Your task to perform on an android device: Open my contact list Image 0: 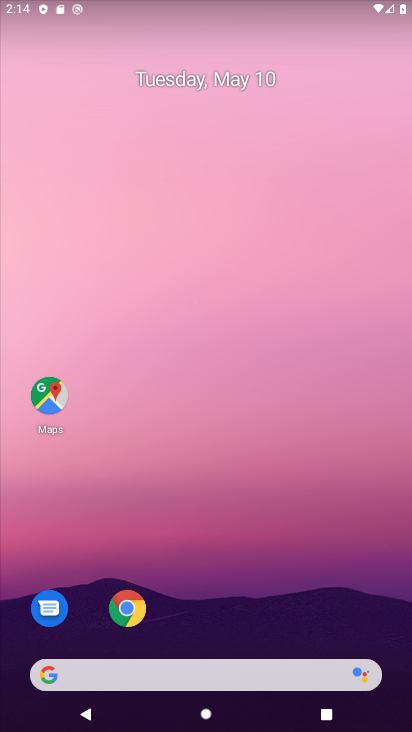
Step 0: drag from (317, 616) to (306, 56)
Your task to perform on an android device: Open my contact list Image 1: 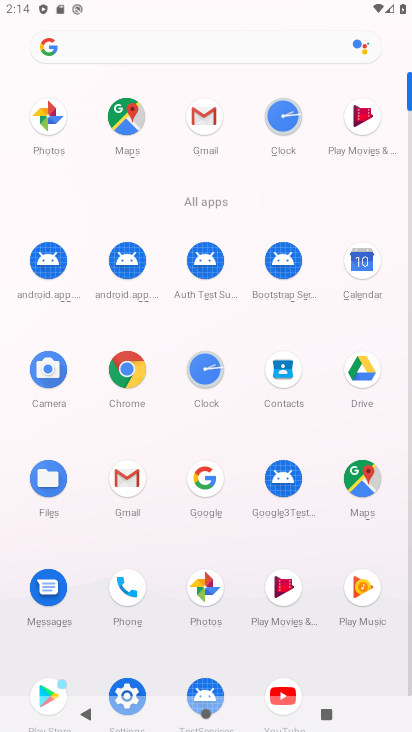
Step 1: click (283, 378)
Your task to perform on an android device: Open my contact list Image 2: 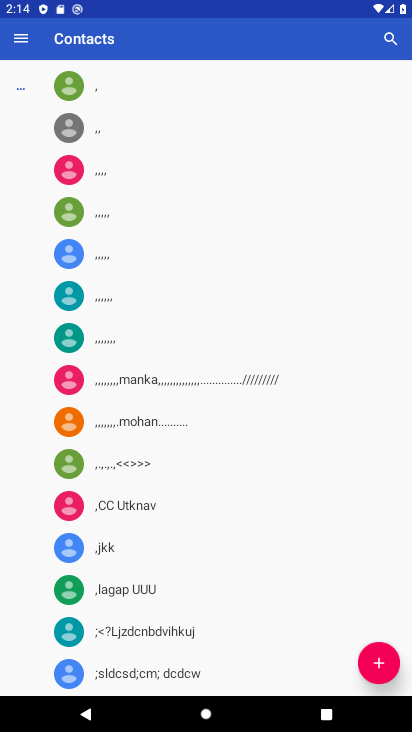
Step 2: task complete